Your task to perform on an android device: Open settings on Google Maps Image 0: 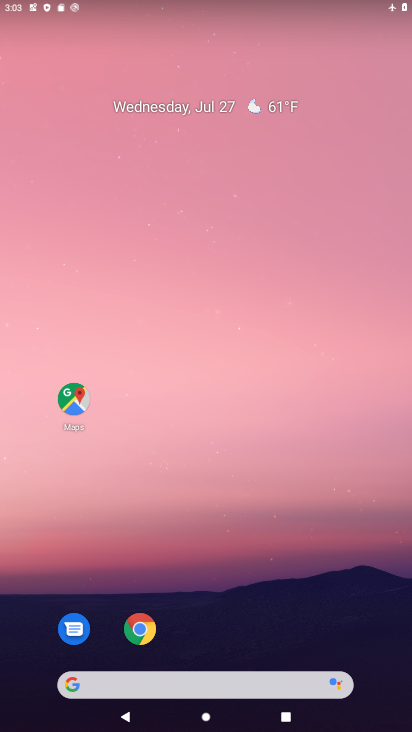
Step 0: click (72, 399)
Your task to perform on an android device: Open settings on Google Maps Image 1: 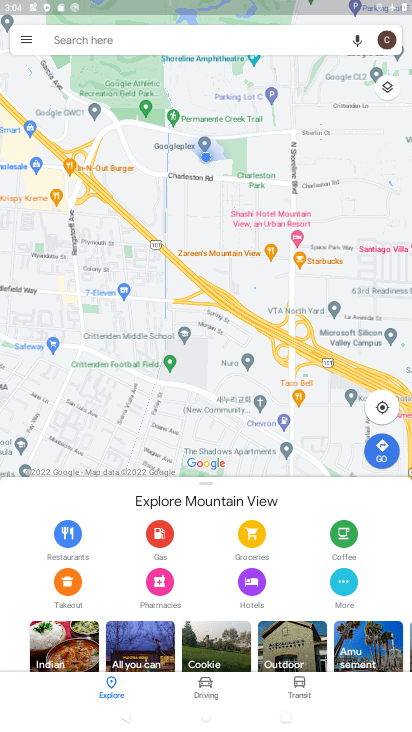
Step 1: click (26, 41)
Your task to perform on an android device: Open settings on Google Maps Image 2: 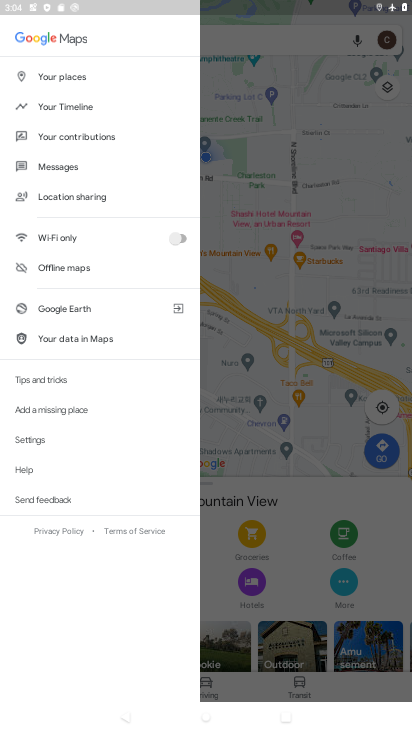
Step 2: click (31, 442)
Your task to perform on an android device: Open settings on Google Maps Image 3: 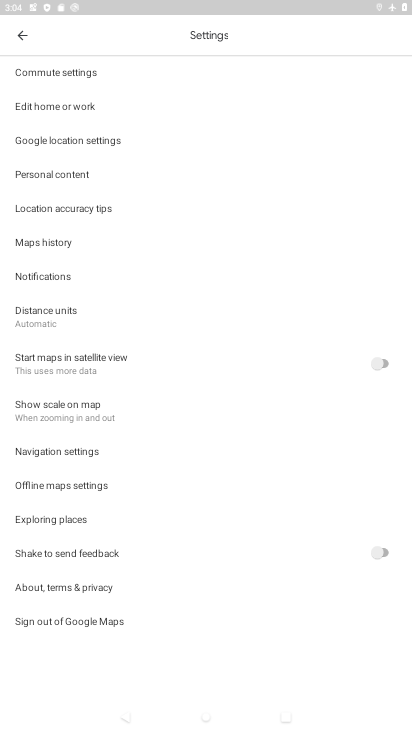
Step 3: task complete